Your task to perform on an android device: Open the stopwatch Image 0: 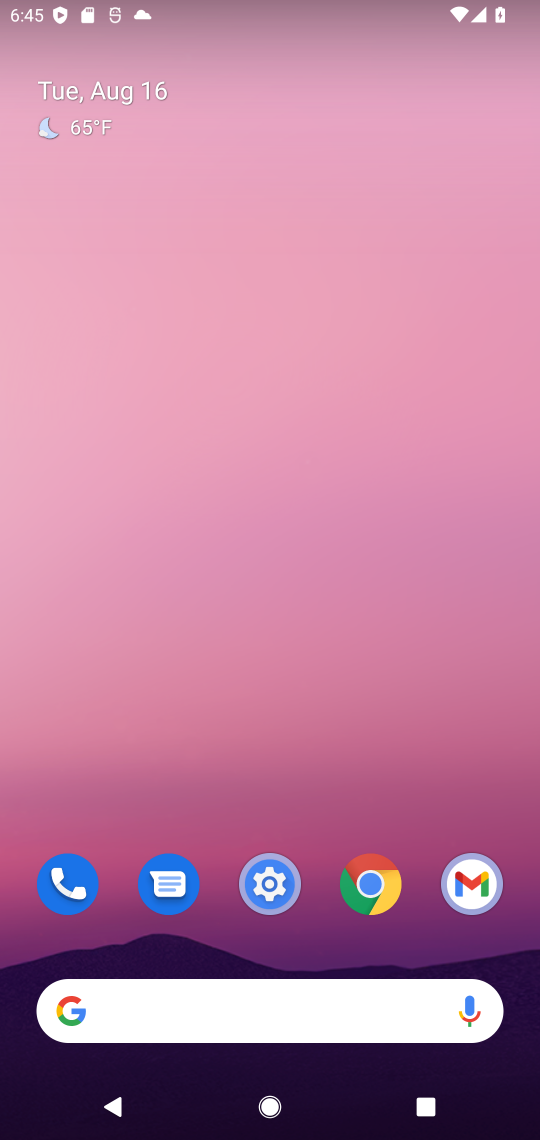
Step 0: press home button
Your task to perform on an android device: Open the stopwatch Image 1: 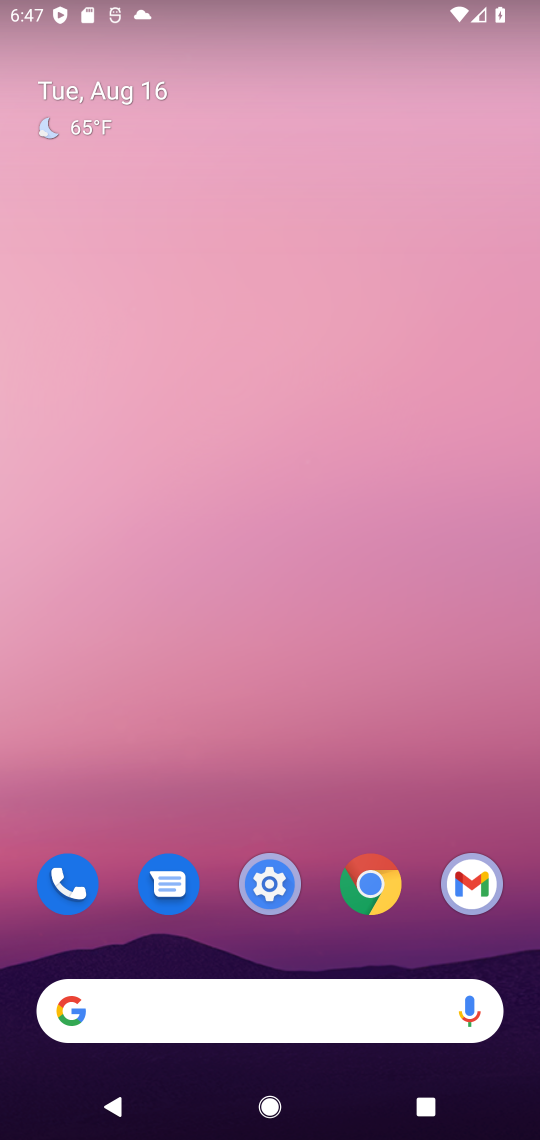
Step 1: drag from (277, 799) to (373, 208)
Your task to perform on an android device: Open the stopwatch Image 2: 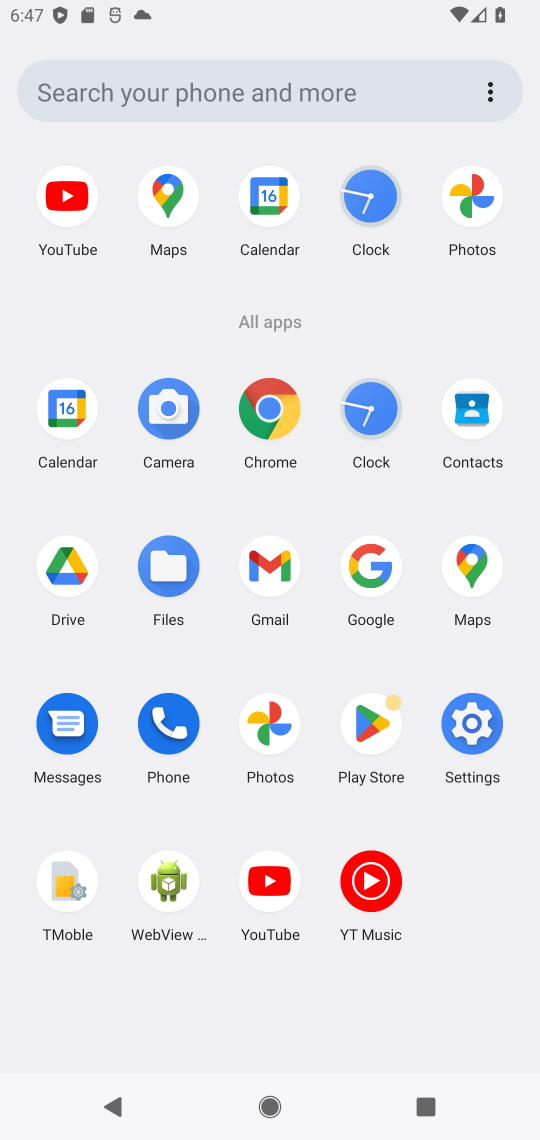
Step 2: click (365, 194)
Your task to perform on an android device: Open the stopwatch Image 3: 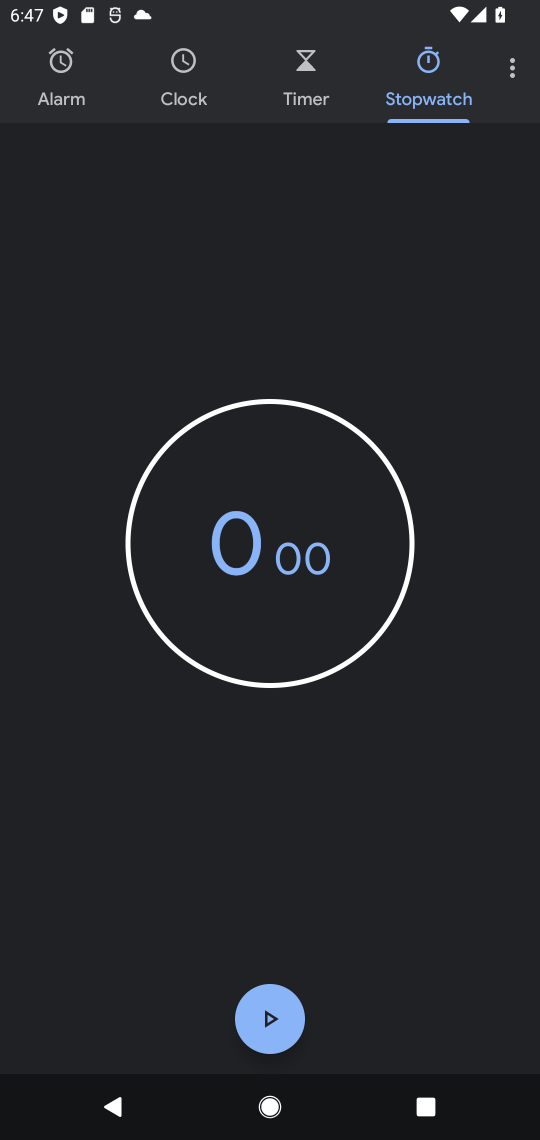
Step 3: click (289, 1037)
Your task to perform on an android device: Open the stopwatch Image 4: 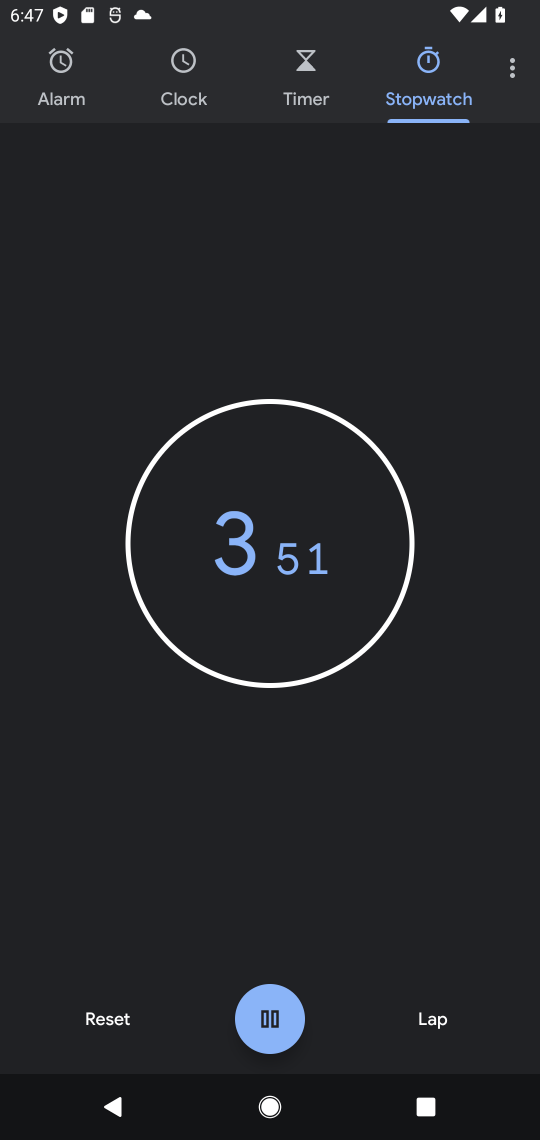
Step 4: drag from (274, 1021) to (331, 1011)
Your task to perform on an android device: Open the stopwatch Image 5: 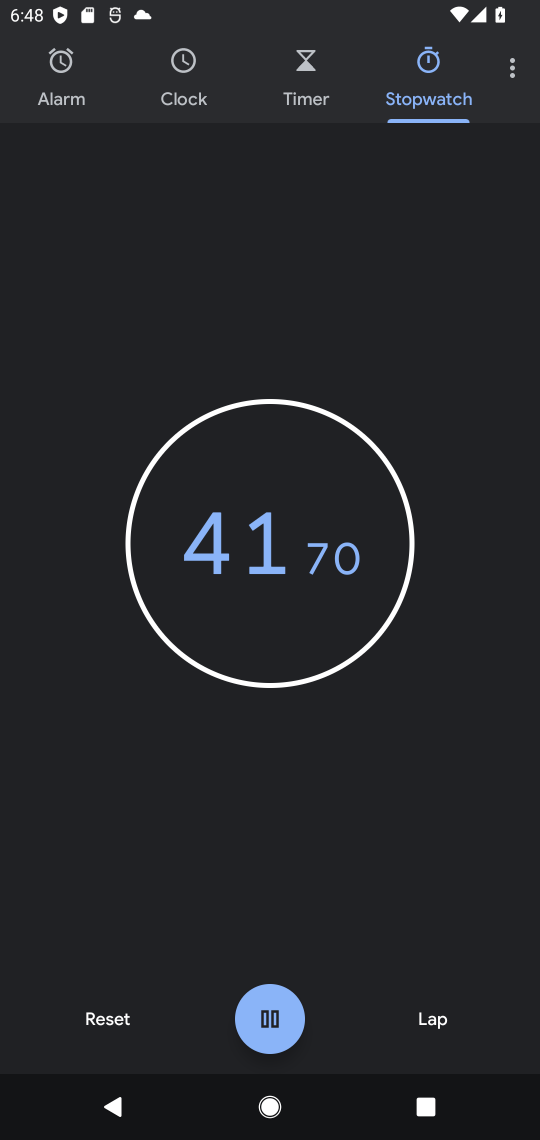
Step 5: click (280, 1017)
Your task to perform on an android device: Open the stopwatch Image 6: 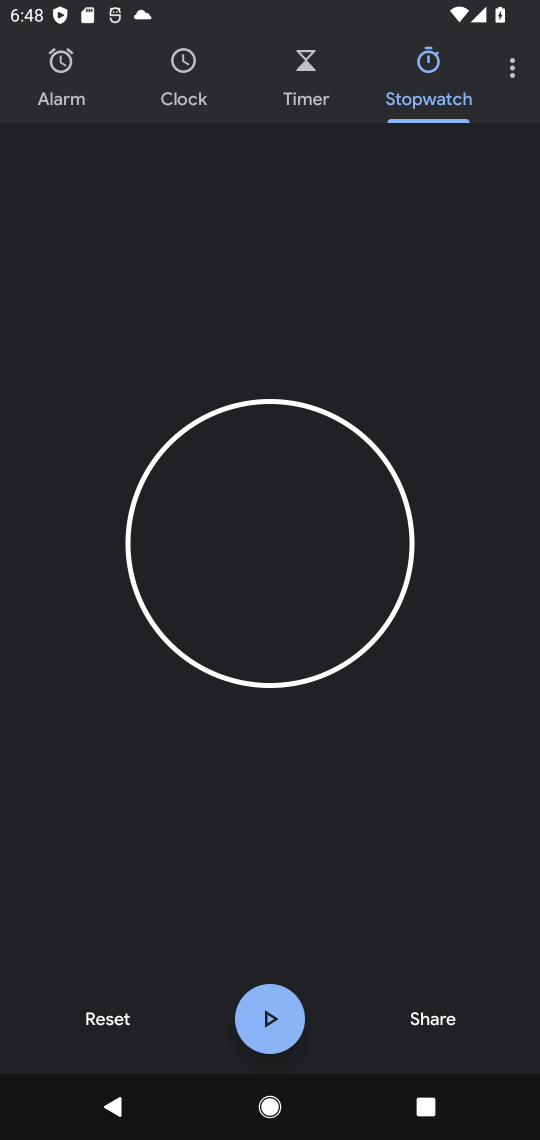
Step 6: task complete